Your task to perform on an android device: Open settings Image 0: 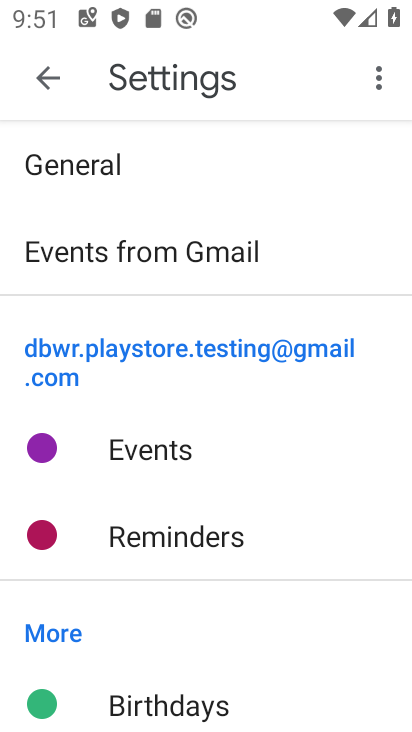
Step 0: press home button
Your task to perform on an android device: Open settings Image 1: 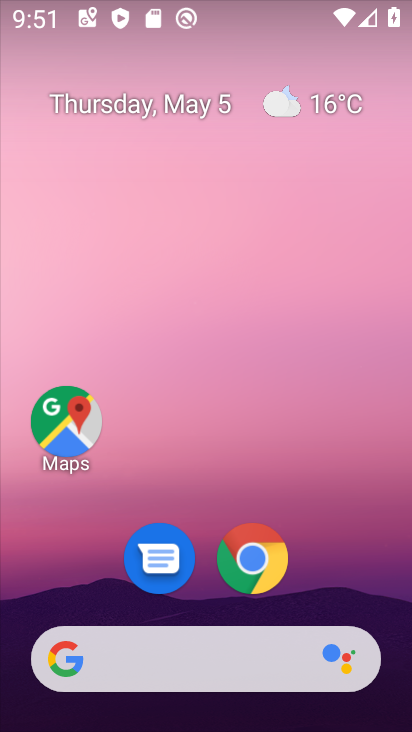
Step 1: drag from (341, 589) to (328, 191)
Your task to perform on an android device: Open settings Image 2: 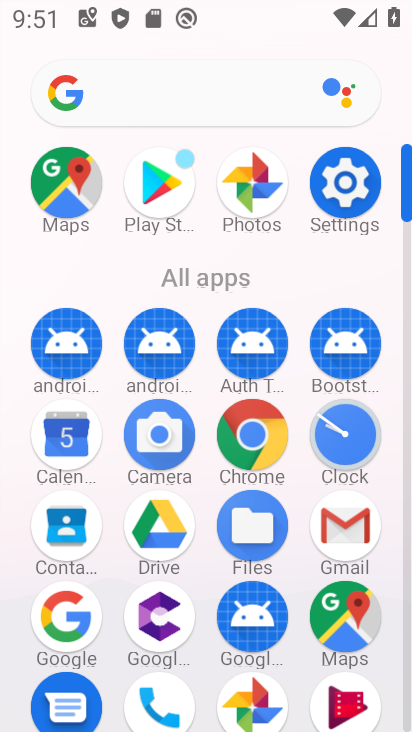
Step 2: click (354, 198)
Your task to perform on an android device: Open settings Image 3: 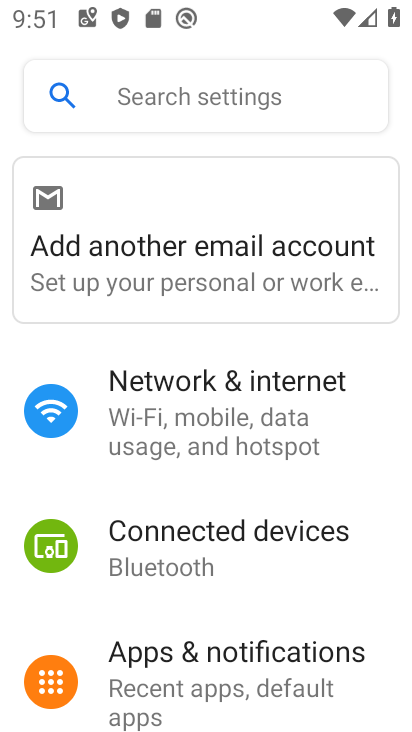
Step 3: task complete